Your task to perform on an android device: How much does the Vizio TV cost? Image 0: 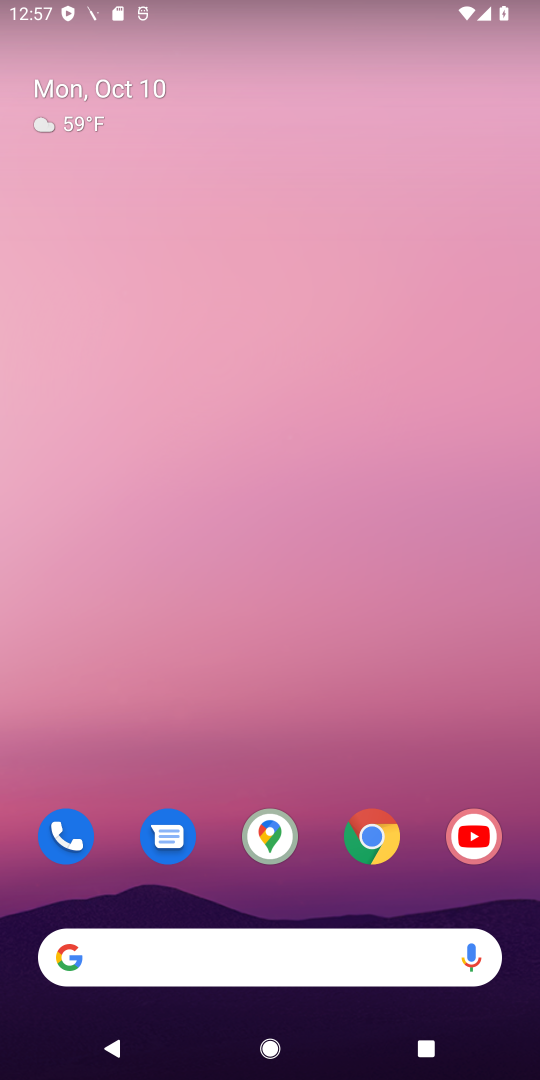
Step 0: click (368, 858)
Your task to perform on an android device: How much does the Vizio TV cost? Image 1: 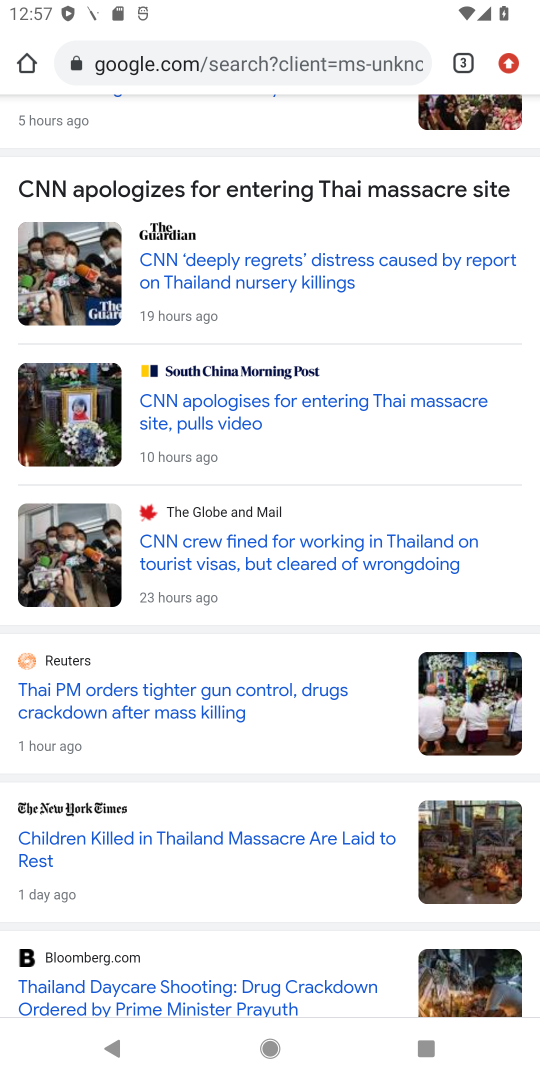
Step 1: click (311, 44)
Your task to perform on an android device: How much does the Vizio TV cost? Image 2: 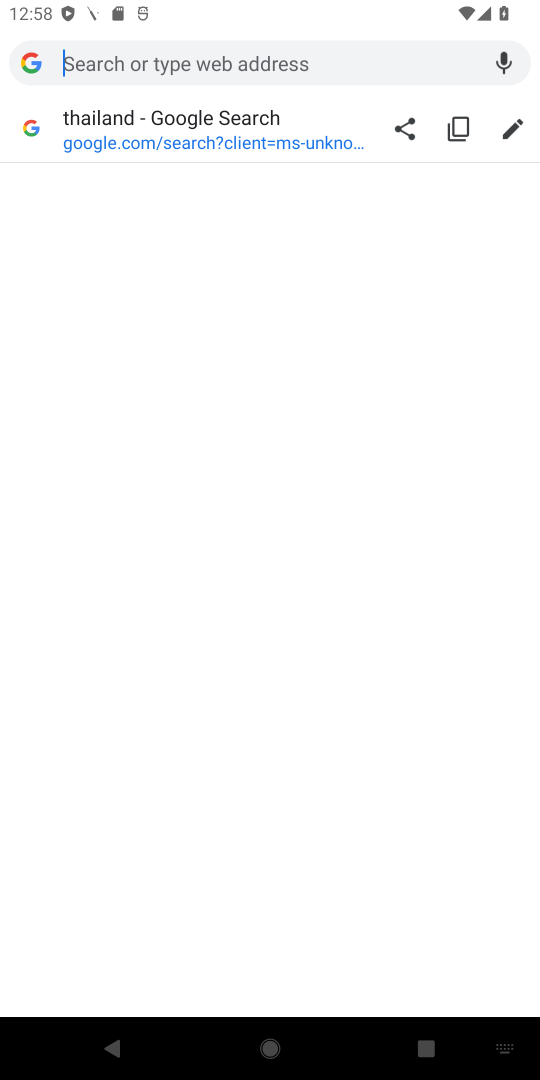
Step 2: type "How much does the Vizio TV cost?"
Your task to perform on an android device: How much does the Vizio TV cost? Image 3: 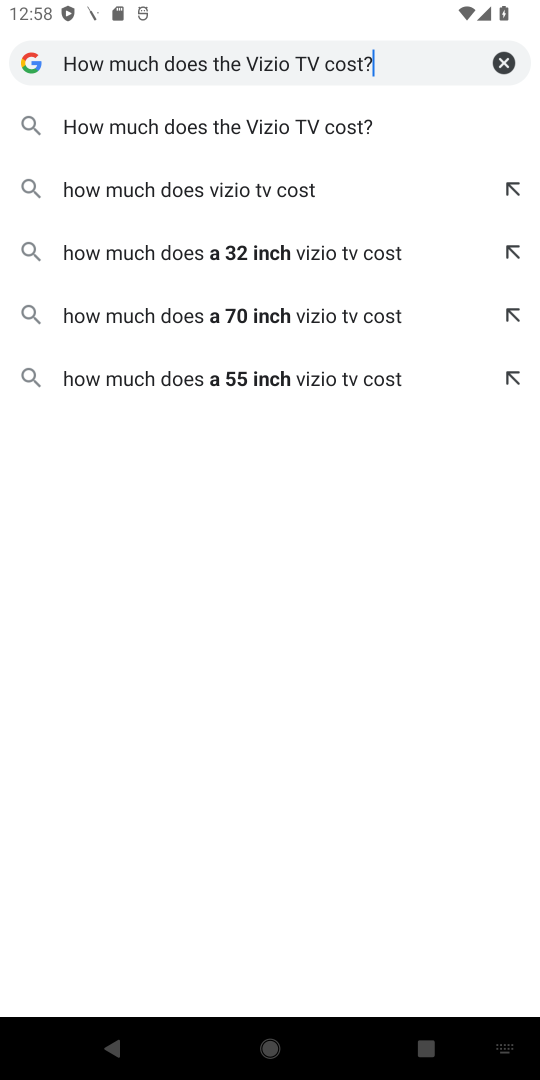
Step 3: click (210, 128)
Your task to perform on an android device: How much does the Vizio TV cost? Image 4: 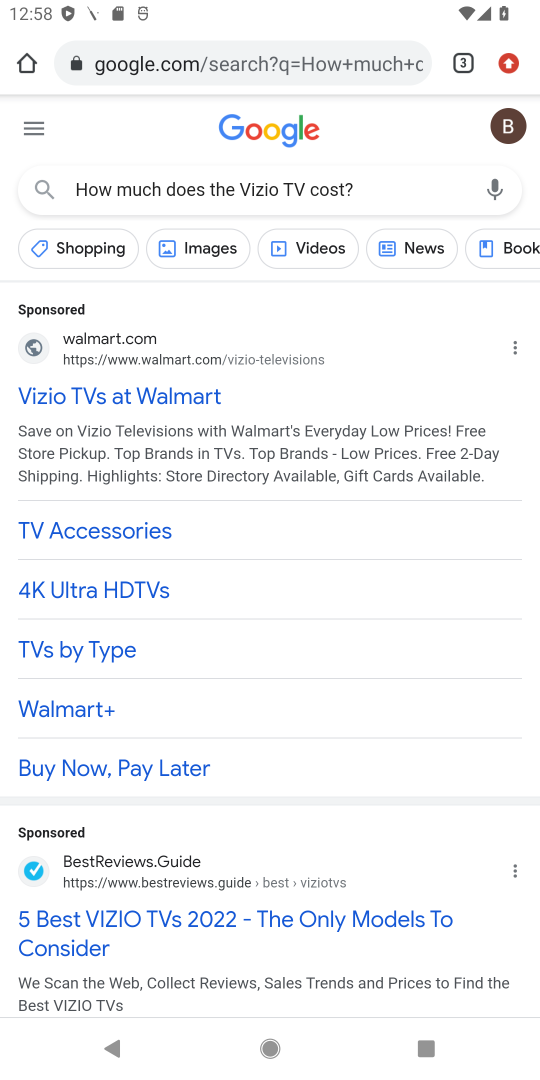
Step 4: drag from (389, 885) to (366, 368)
Your task to perform on an android device: How much does the Vizio TV cost? Image 5: 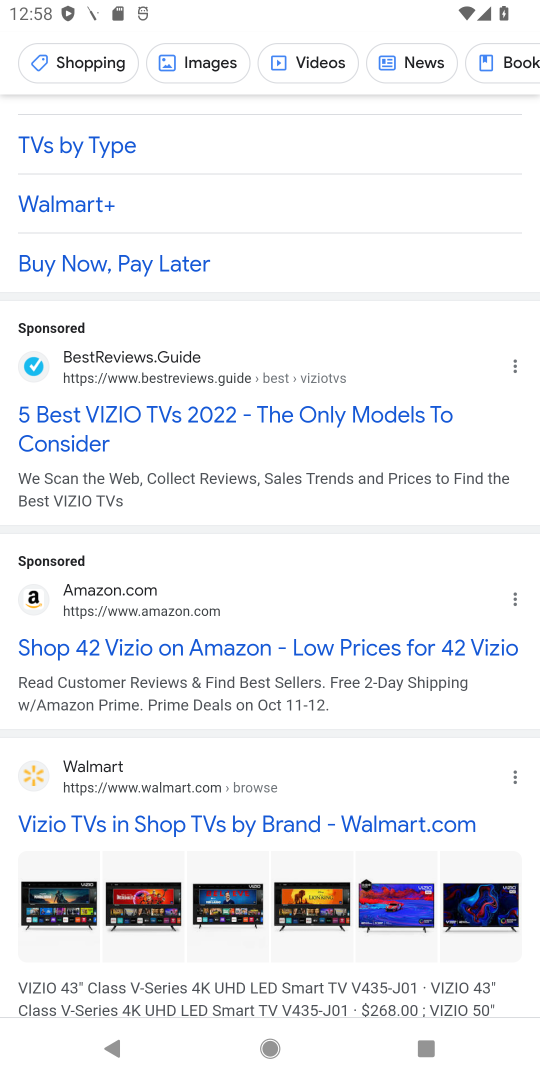
Step 5: drag from (388, 746) to (358, 375)
Your task to perform on an android device: How much does the Vizio TV cost? Image 6: 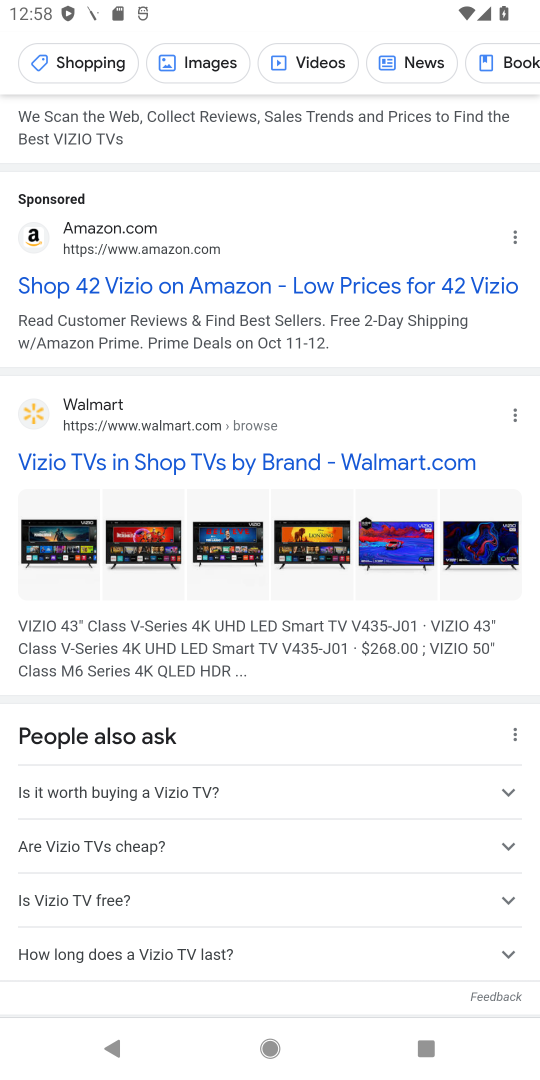
Step 6: drag from (310, 278) to (326, 465)
Your task to perform on an android device: How much does the Vizio TV cost? Image 7: 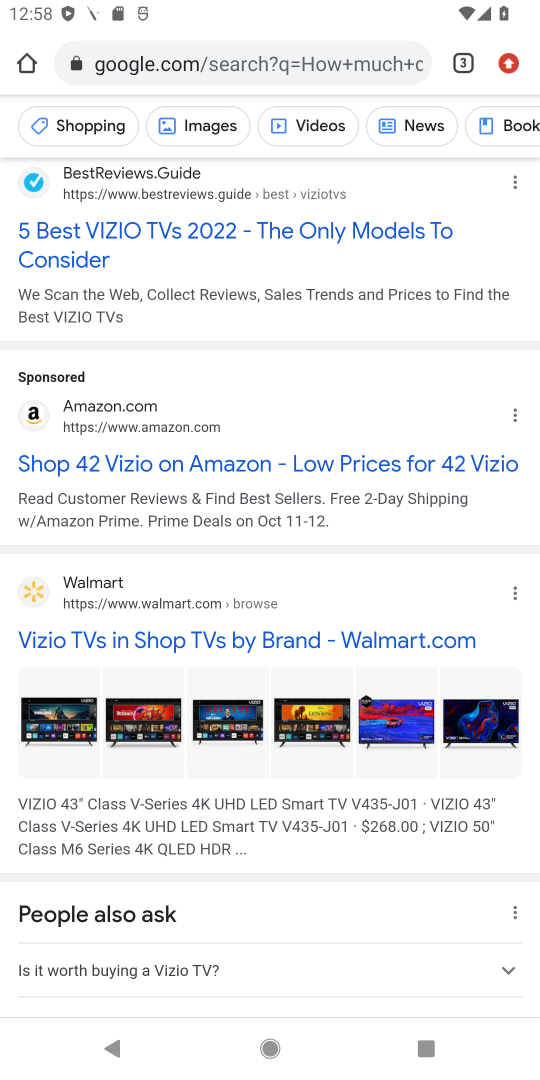
Step 7: click (285, 233)
Your task to perform on an android device: How much does the Vizio TV cost? Image 8: 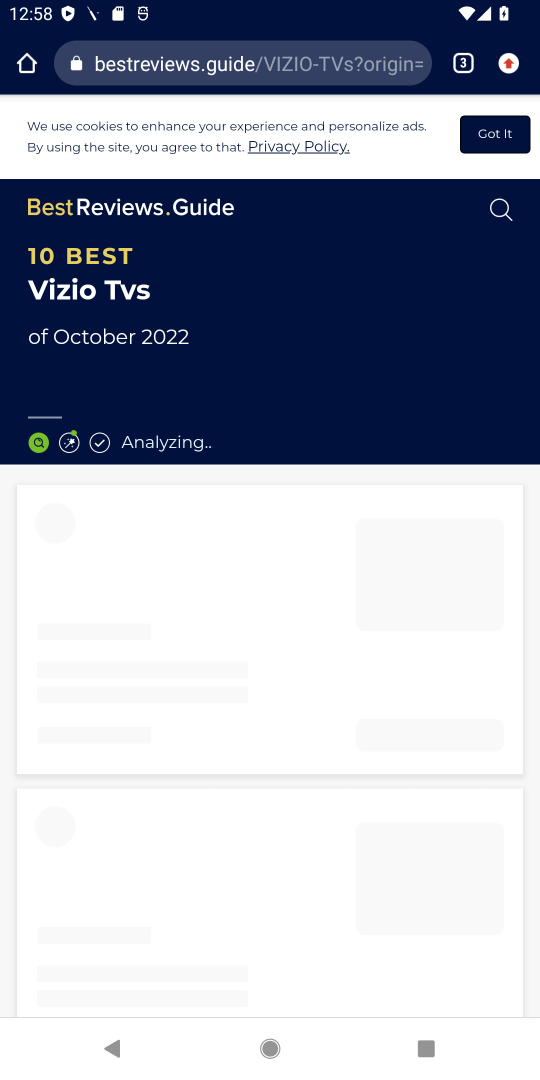
Step 8: drag from (382, 705) to (367, 402)
Your task to perform on an android device: How much does the Vizio TV cost? Image 9: 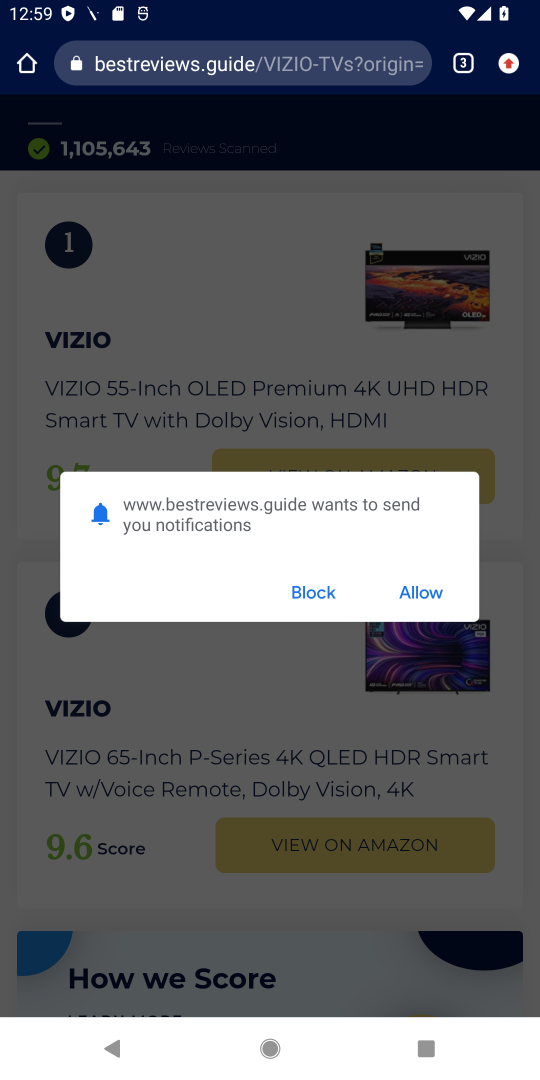
Step 9: click (310, 586)
Your task to perform on an android device: How much does the Vizio TV cost? Image 10: 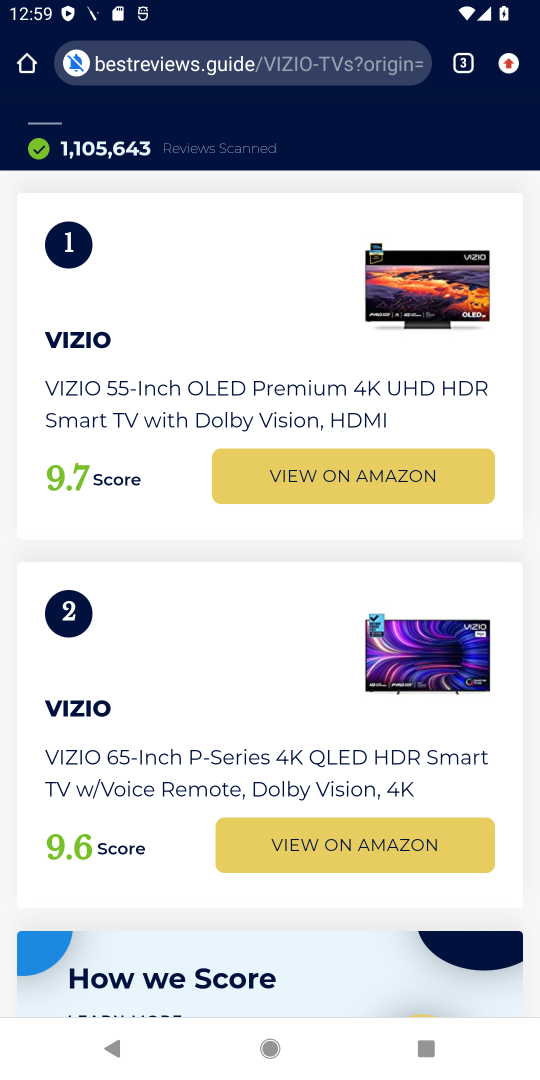
Step 10: drag from (364, 718) to (367, 620)
Your task to perform on an android device: How much does the Vizio TV cost? Image 11: 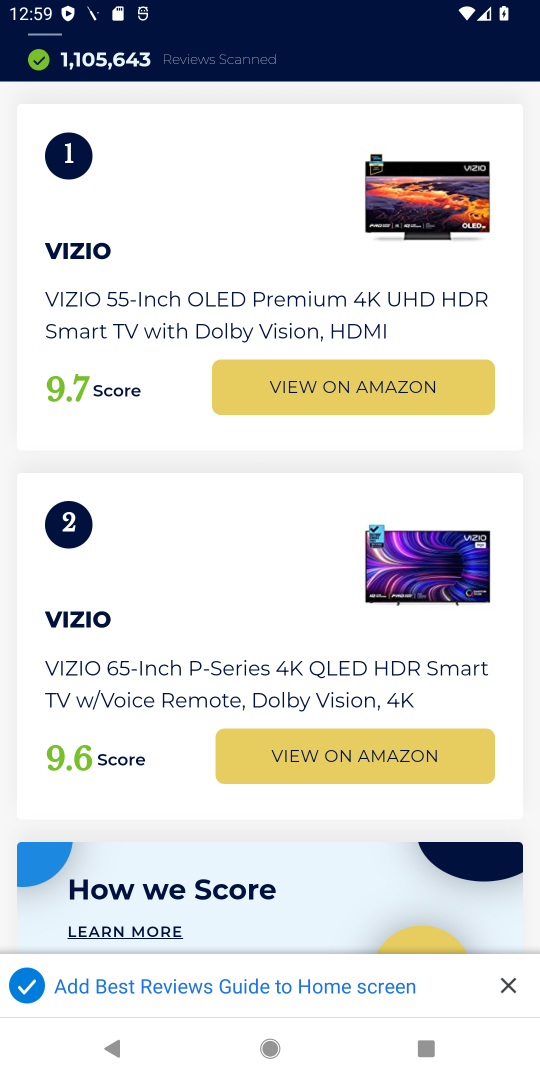
Step 11: click (341, 383)
Your task to perform on an android device: How much does the Vizio TV cost? Image 12: 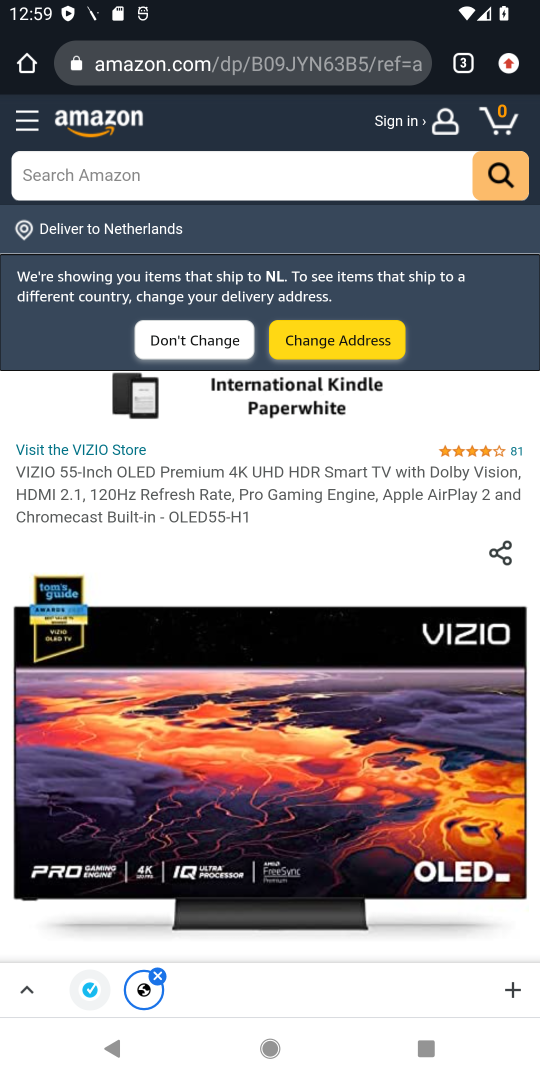
Step 12: task complete